Your task to perform on an android device: What's the news in Bangladesh? Image 0: 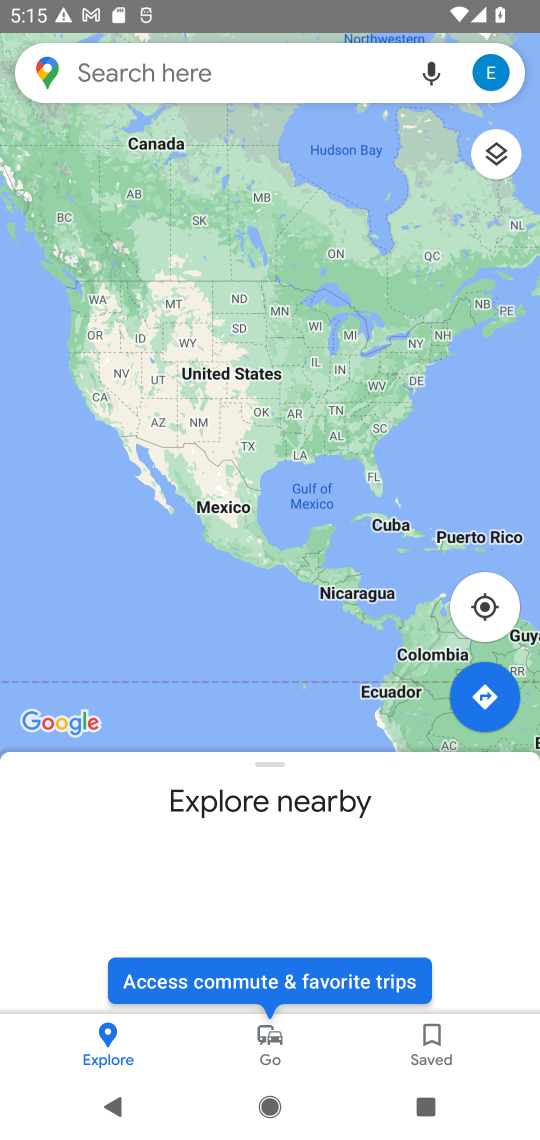
Step 0: press home button
Your task to perform on an android device: What's the news in Bangladesh? Image 1: 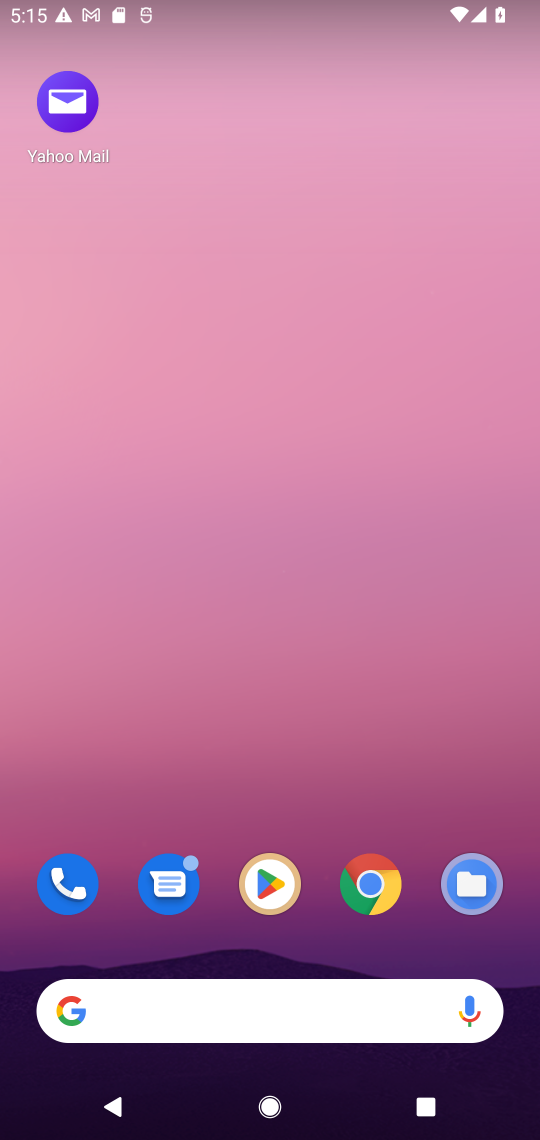
Step 1: click (375, 887)
Your task to perform on an android device: What's the news in Bangladesh? Image 2: 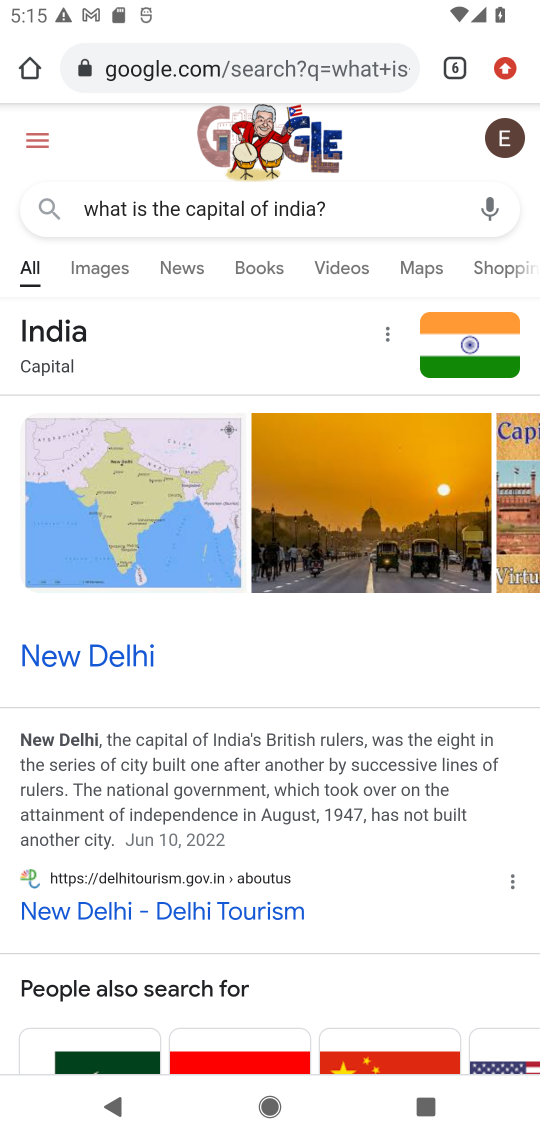
Step 2: click (373, 204)
Your task to perform on an android device: What's the news in Bangladesh? Image 3: 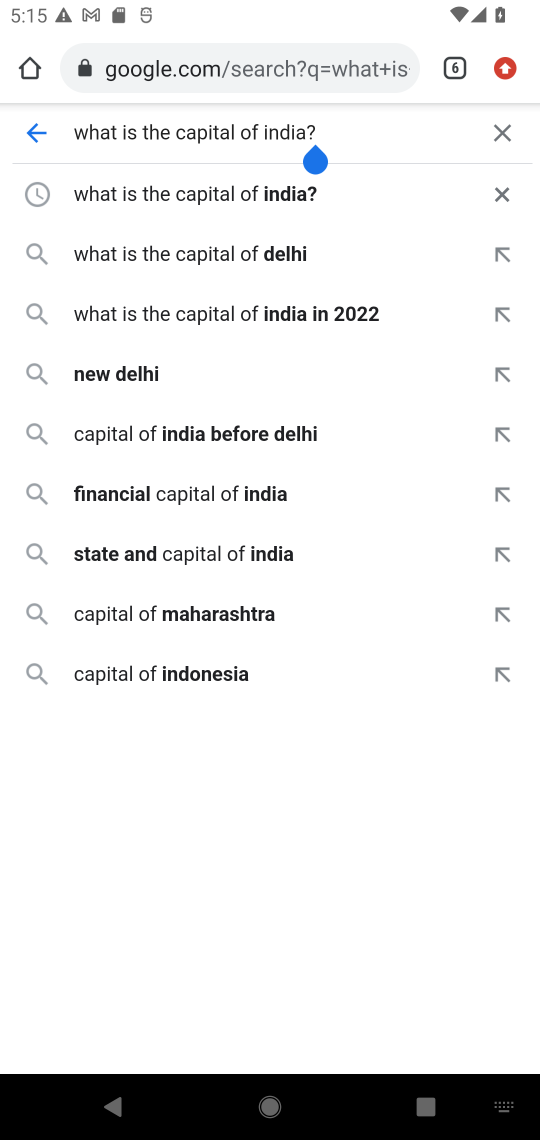
Step 3: click (496, 124)
Your task to perform on an android device: What's the news in Bangladesh? Image 4: 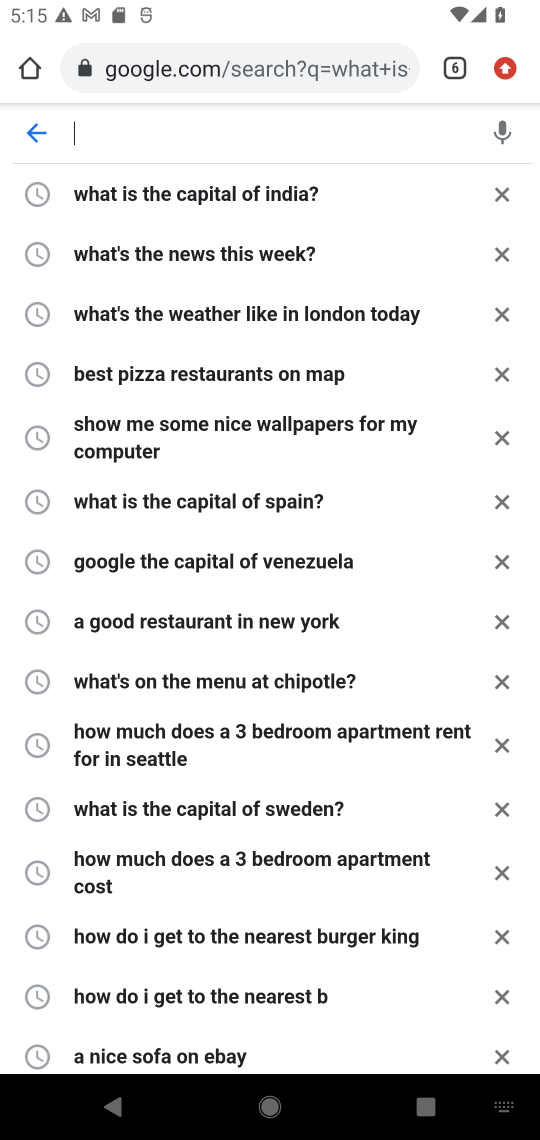
Step 4: type "What's the news in Bangladesh?"
Your task to perform on an android device: What's the news in Bangladesh? Image 5: 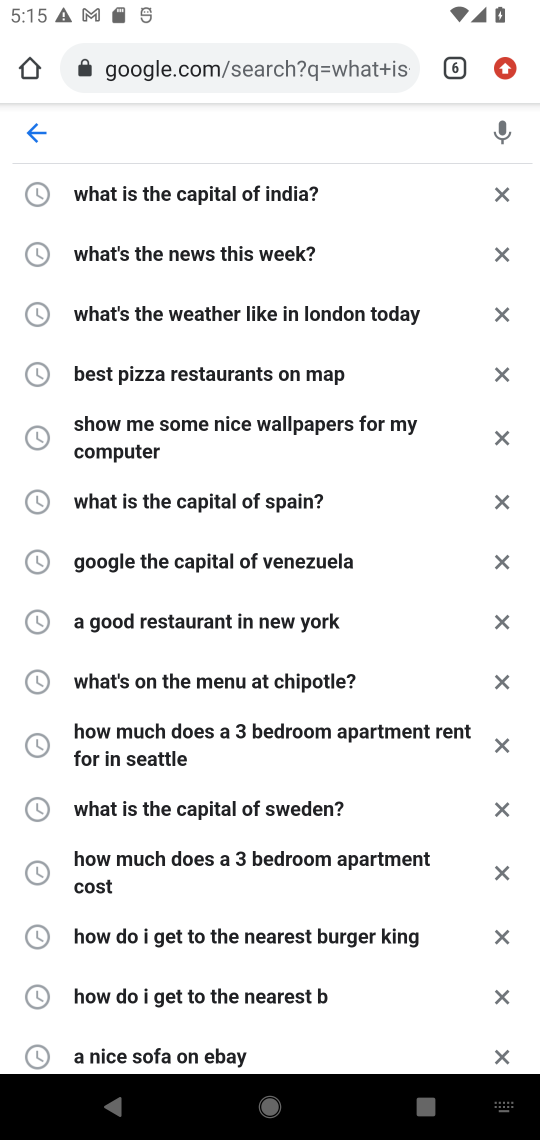
Step 5: type ""
Your task to perform on an android device: What's the news in Bangladesh? Image 6: 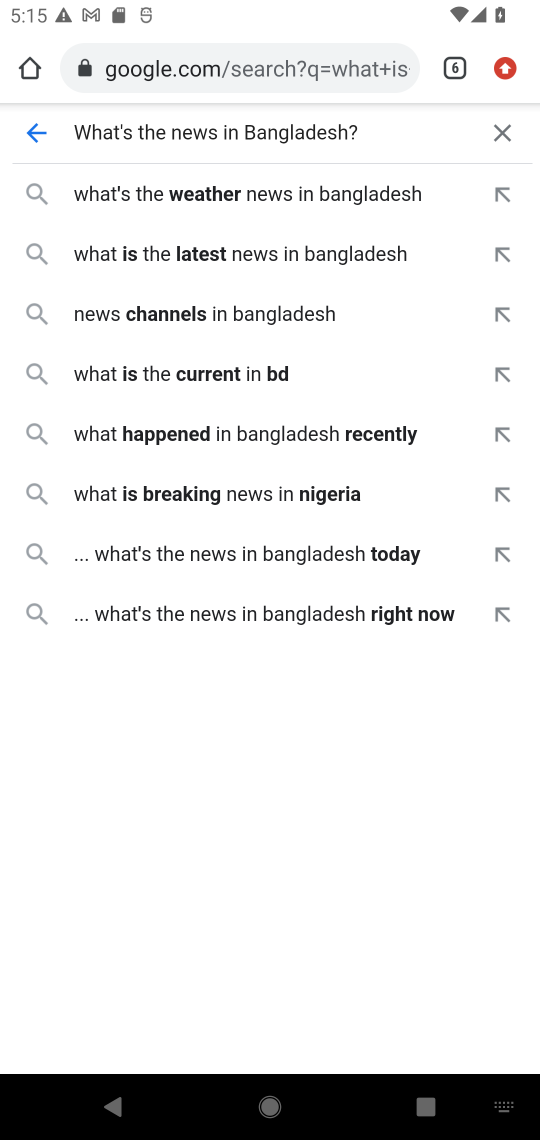
Step 6: click (297, 191)
Your task to perform on an android device: What's the news in Bangladesh? Image 7: 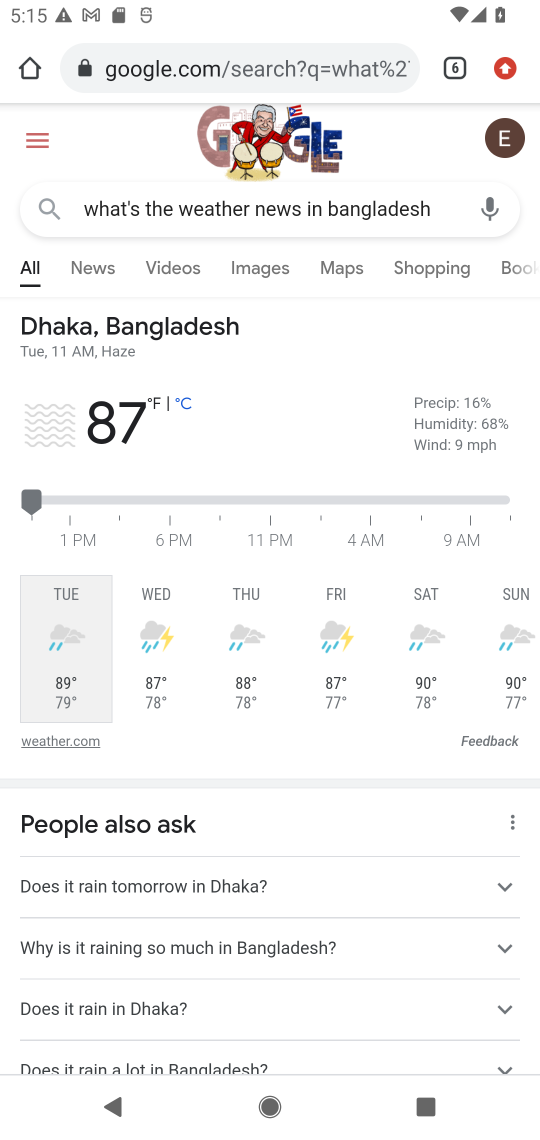
Step 7: task complete